Your task to perform on an android device: Open Youtube and go to the subscriptions tab Image 0: 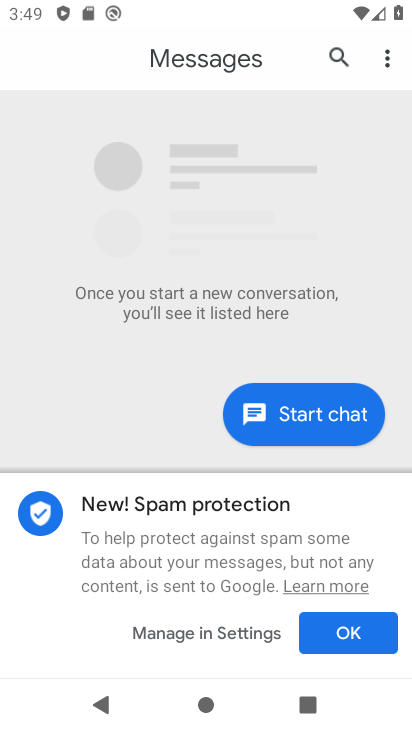
Step 0: press home button
Your task to perform on an android device: Open Youtube and go to the subscriptions tab Image 1: 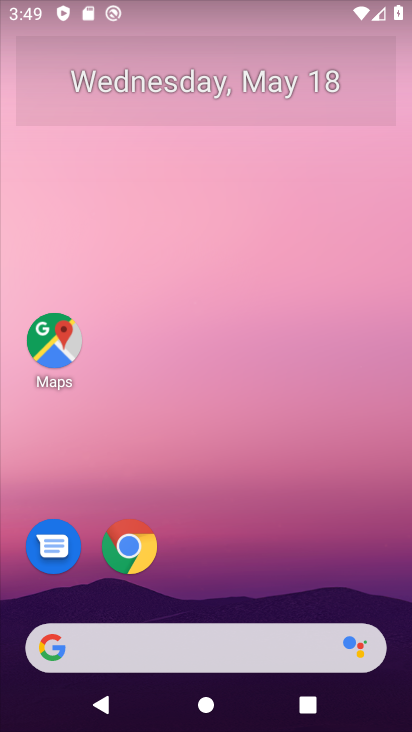
Step 1: drag from (257, 520) to (310, 92)
Your task to perform on an android device: Open Youtube and go to the subscriptions tab Image 2: 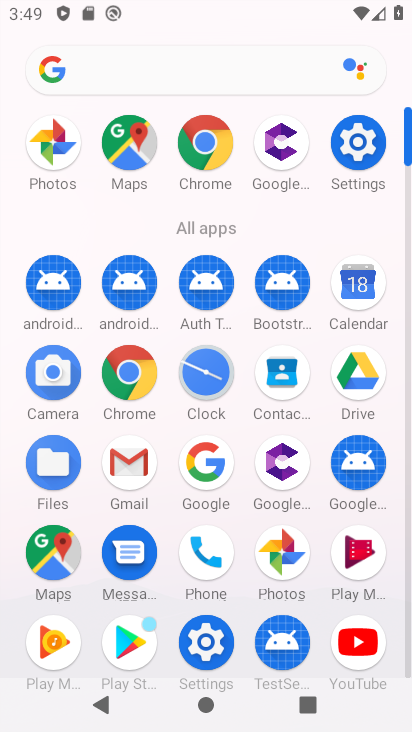
Step 2: click (366, 648)
Your task to perform on an android device: Open Youtube and go to the subscriptions tab Image 3: 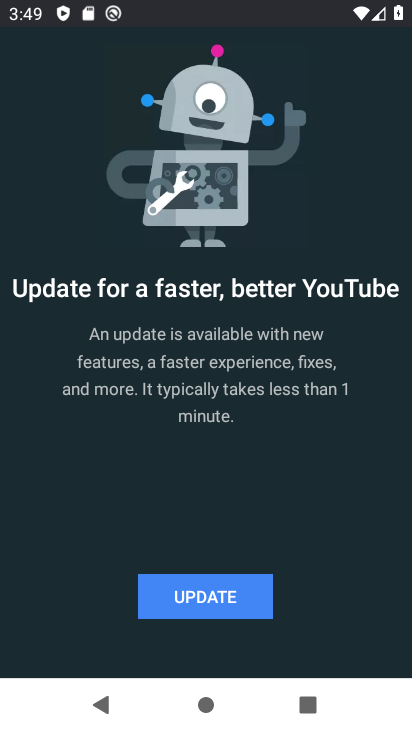
Step 3: click (206, 602)
Your task to perform on an android device: Open Youtube and go to the subscriptions tab Image 4: 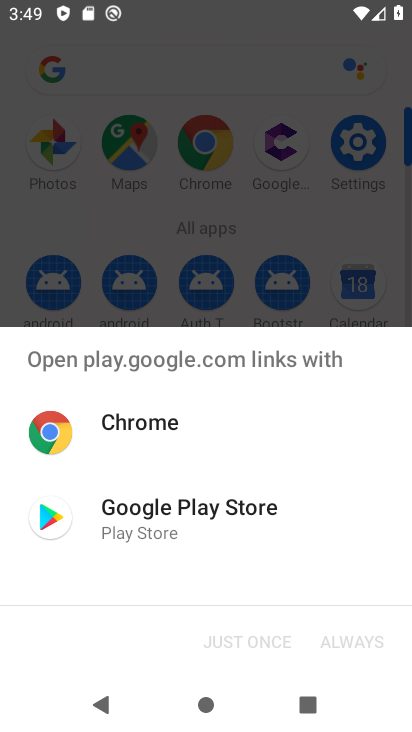
Step 4: click (151, 523)
Your task to perform on an android device: Open Youtube and go to the subscriptions tab Image 5: 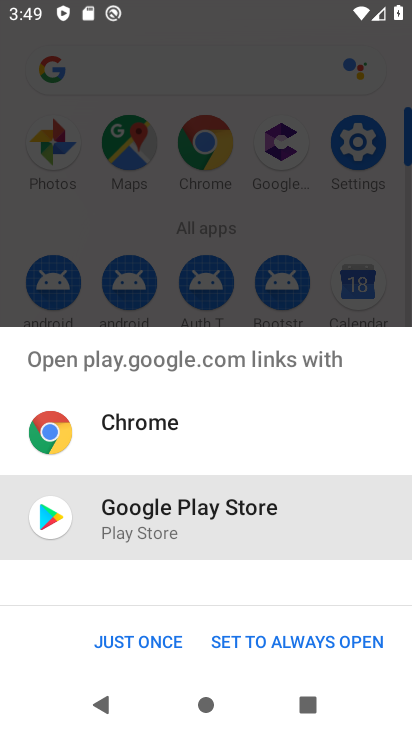
Step 5: click (150, 644)
Your task to perform on an android device: Open Youtube and go to the subscriptions tab Image 6: 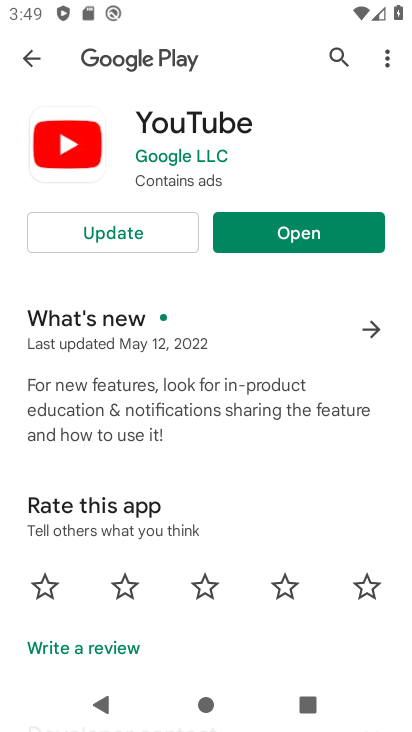
Step 6: click (134, 233)
Your task to perform on an android device: Open Youtube and go to the subscriptions tab Image 7: 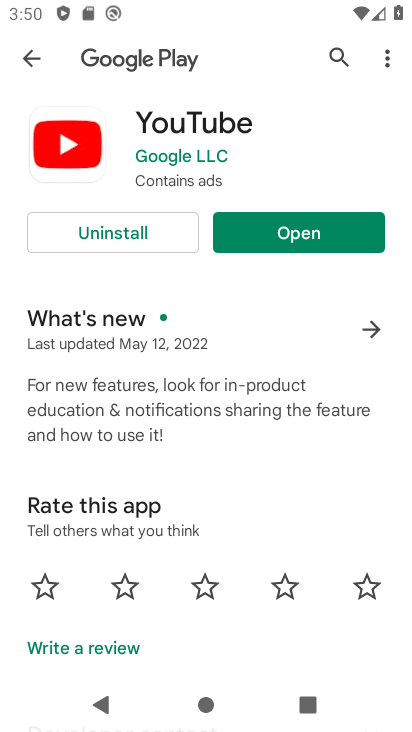
Step 7: click (246, 242)
Your task to perform on an android device: Open Youtube and go to the subscriptions tab Image 8: 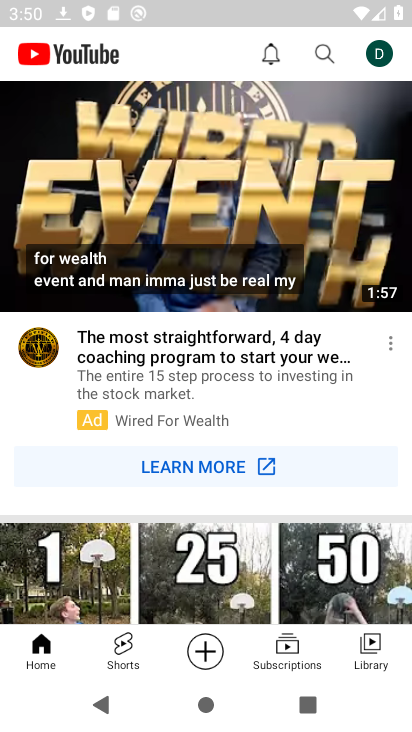
Step 8: click (274, 649)
Your task to perform on an android device: Open Youtube and go to the subscriptions tab Image 9: 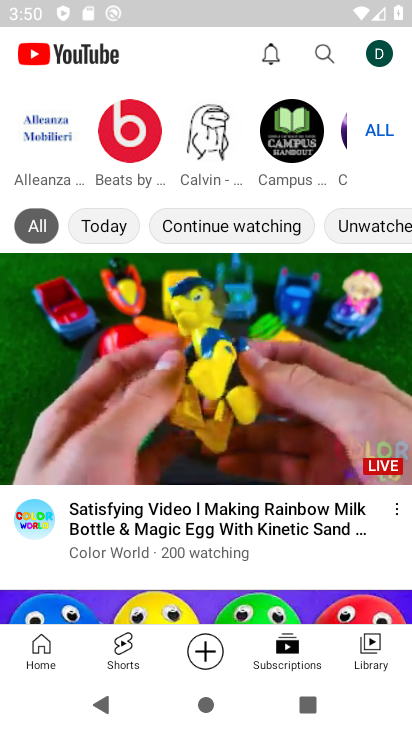
Step 9: task complete